Your task to perform on an android device: turn off priority inbox in the gmail app Image 0: 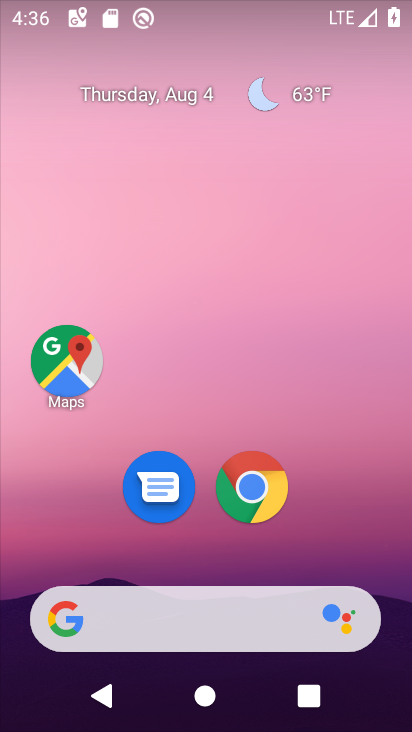
Step 0: drag from (129, 5) to (197, 480)
Your task to perform on an android device: turn off priority inbox in the gmail app Image 1: 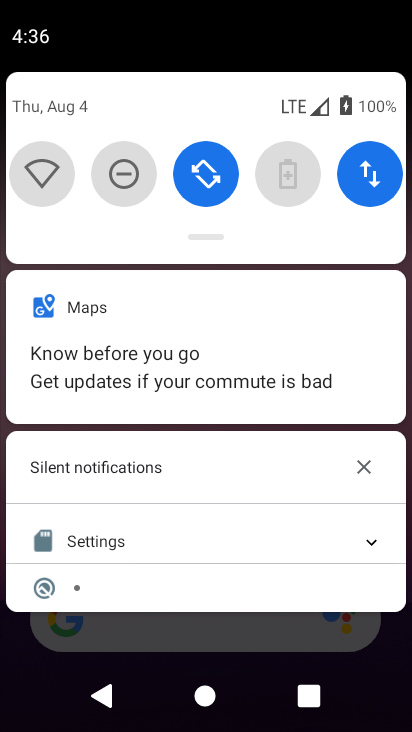
Step 1: click (43, 189)
Your task to perform on an android device: turn off priority inbox in the gmail app Image 2: 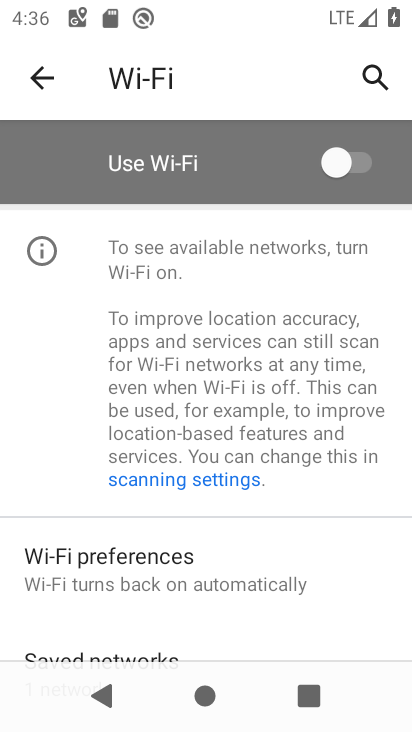
Step 2: press back button
Your task to perform on an android device: turn off priority inbox in the gmail app Image 3: 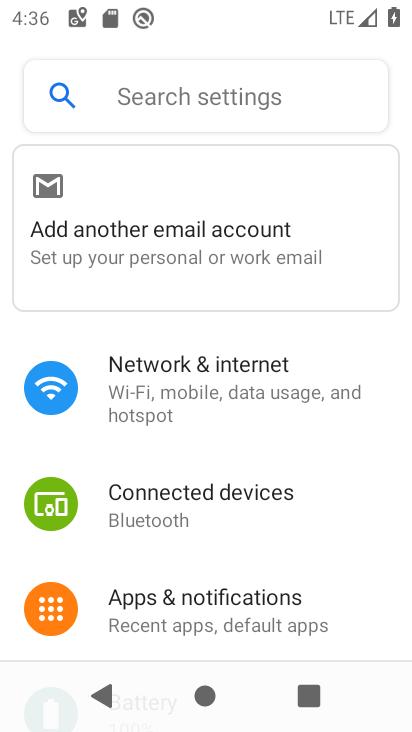
Step 3: press back button
Your task to perform on an android device: turn off priority inbox in the gmail app Image 4: 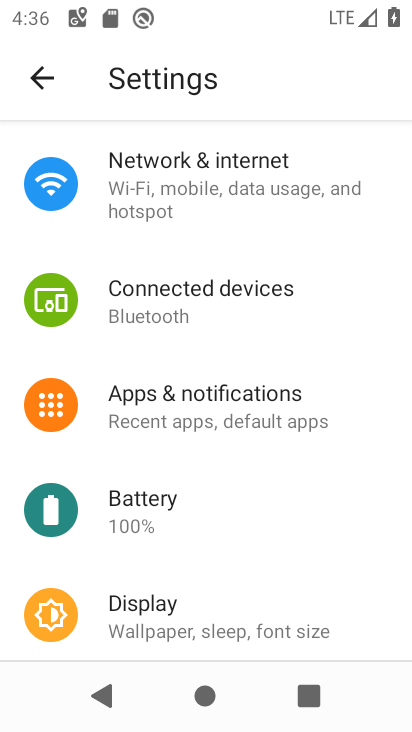
Step 4: press back button
Your task to perform on an android device: turn off priority inbox in the gmail app Image 5: 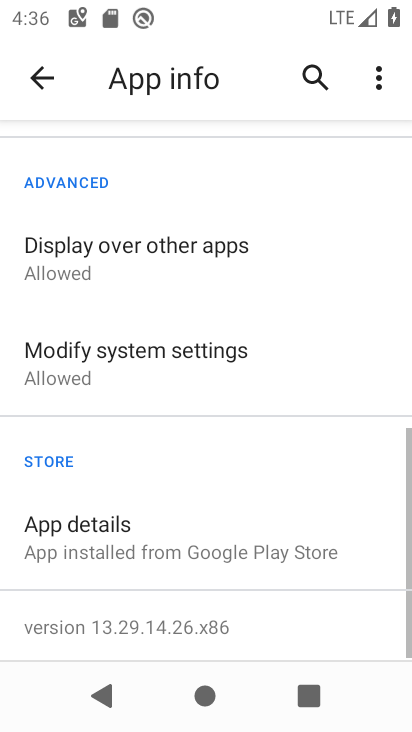
Step 5: press back button
Your task to perform on an android device: turn off priority inbox in the gmail app Image 6: 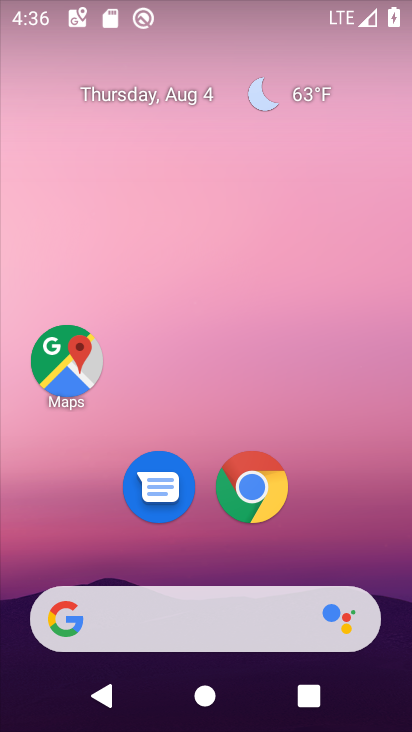
Step 6: drag from (241, 523) to (374, 98)
Your task to perform on an android device: turn off priority inbox in the gmail app Image 7: 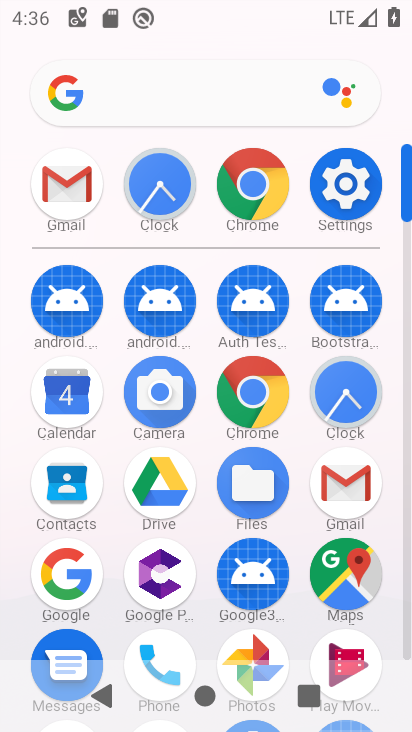
Step 7: click (58, 197)
Your task to perform on an android device: turn off priority inbox in the gmail app Image 8: 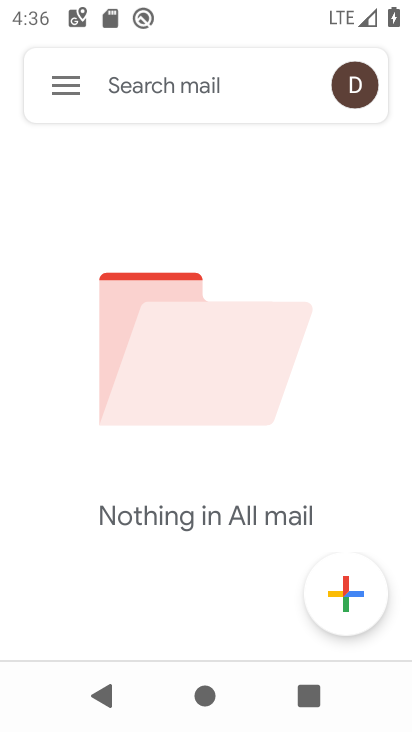
Step 8: click (66, 81)
Your task to perform on an android device: turn off priority inbox in the gmail app Image 9: 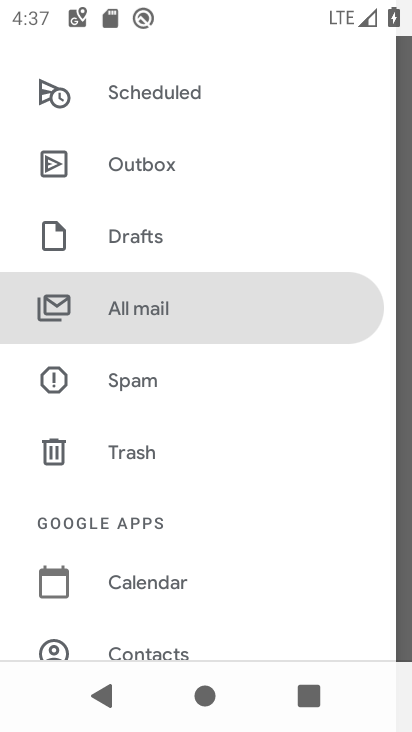
Step 9: drag from (221, 610) to (274, 55)
Your task to perform on an android device: turn off priority inbox in the gmail app Image 10: 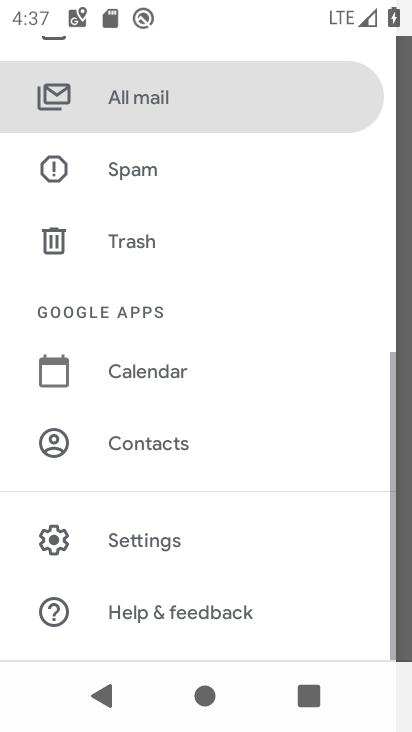
Step 10: click (152, 545)
Your task to perform on an android device: turn off priority inbox in the gmail app Image 11: 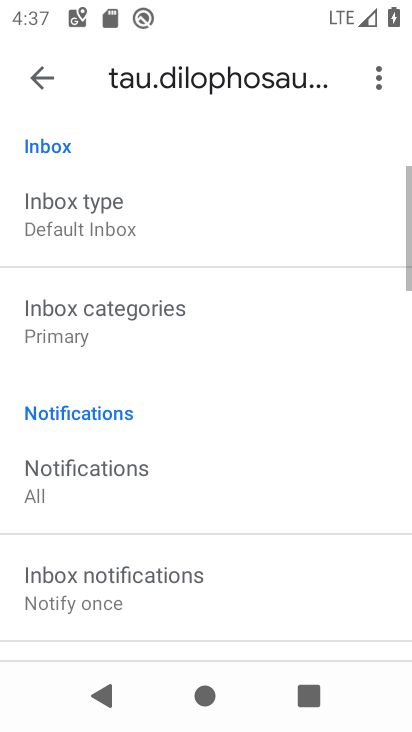
Step 11: click (145, 214)
Your task to perform on an android device: turn off priority inbox in the gmail app Image 12: 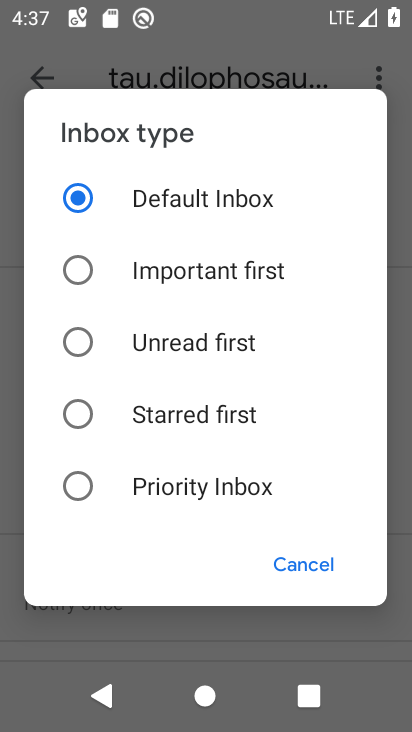
Step 12: task complete